Your task to perform on an android device: check google app version Image 0: 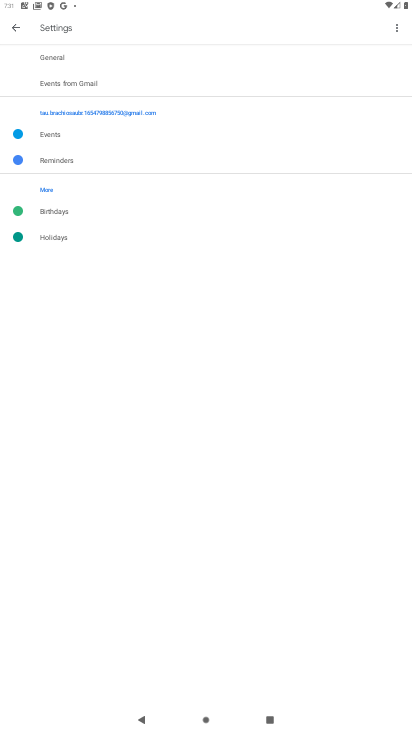
Step 0: press home button
Your task to perform on an android device: check google app version Image 1: 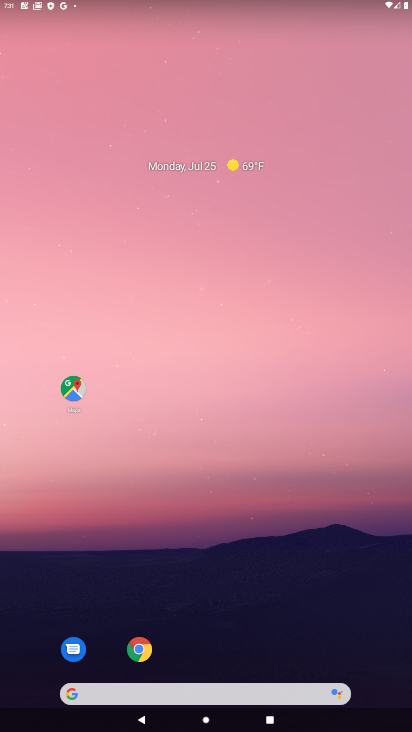
Step 1: drag from (147, 660) to (171, 120)
Your task to perform on an android device: check google app version Image 2: 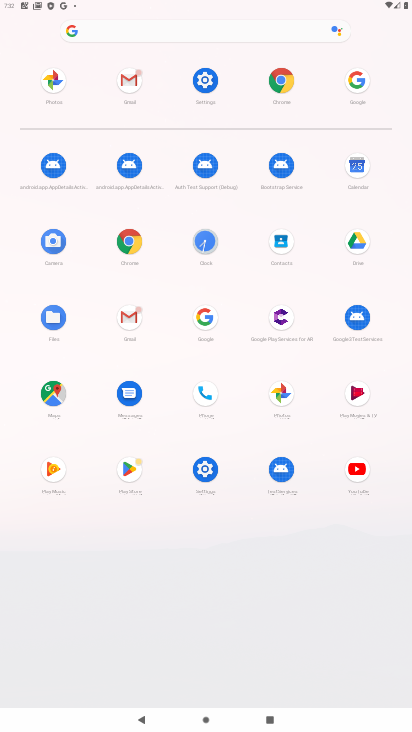
Step 2: click (214, 321)
Your task to perform on an android device: check google app version Image 3: 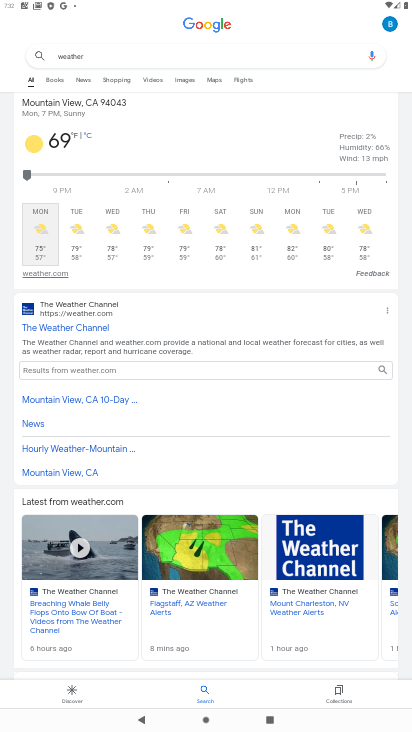
Step 3: click (388, 13)
Your task to perform on an android device: check google app version Image 4: 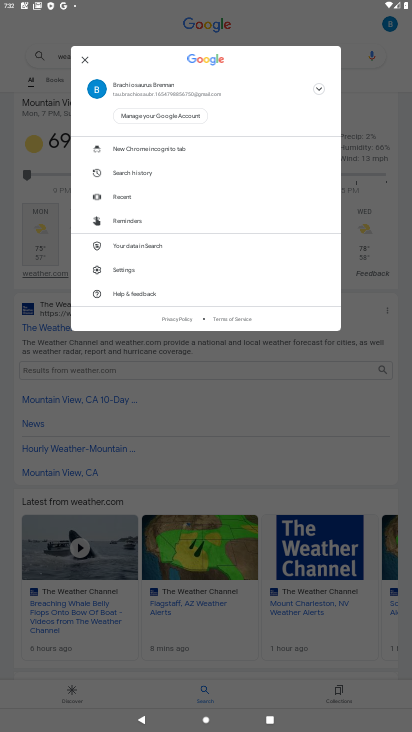
Step 4: click (117, 269)
Your task to perform on an android device: check google app version Image 5: 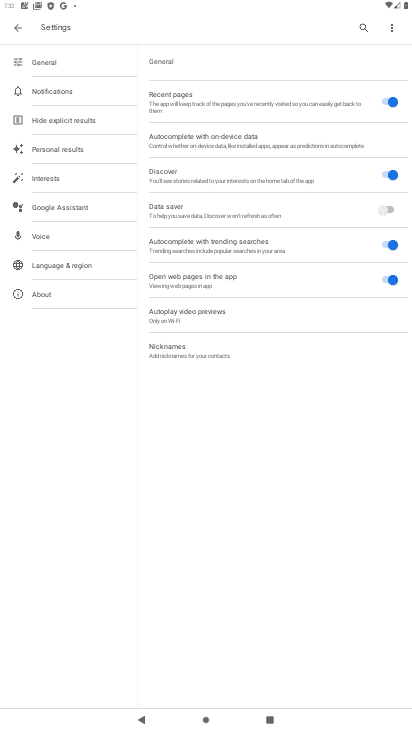
Step 5: click (57, 298)
Your task to perform on an android device: check google app version Image 6: 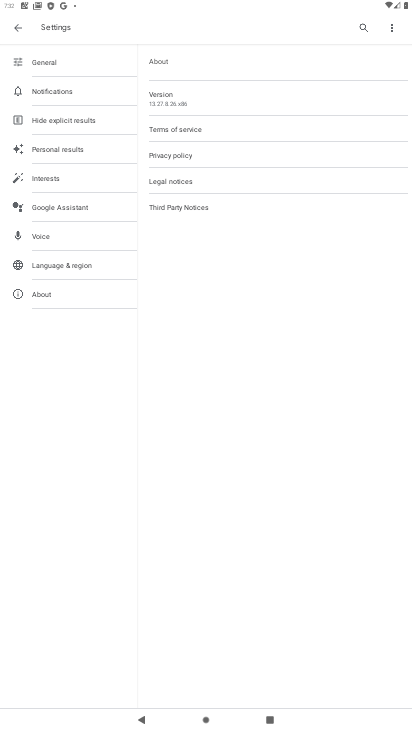
Step 6: click (161, 102)
Your task to perform on an android device: check google app version Image 7: 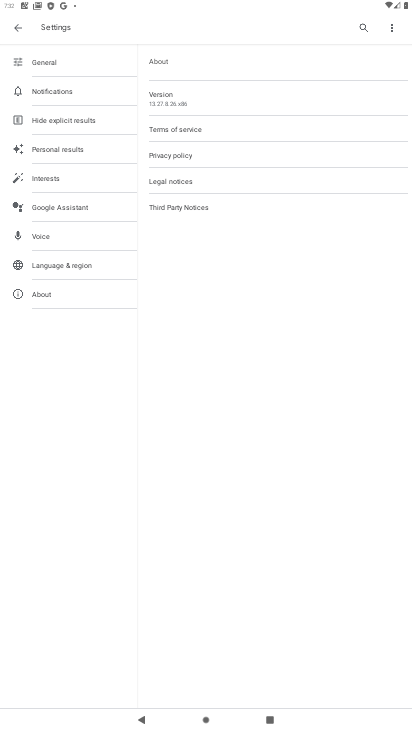
Step 7: task complete